Your task to perform on an android device: Open calendar and show me the third week of next month Image 0: 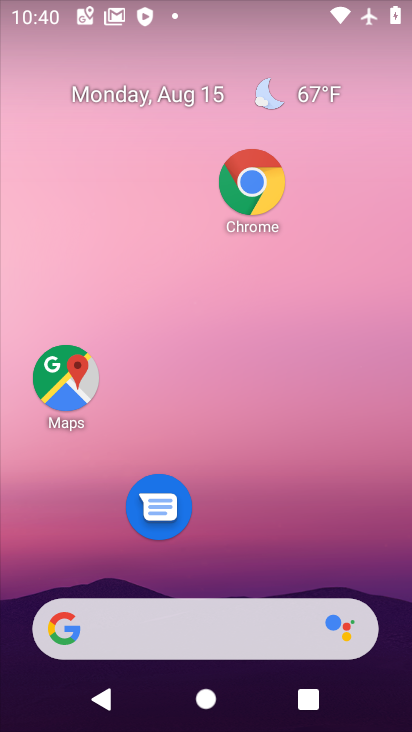
Step 0: drag from (304, 589) to (218, 45)
Your task to perform on an android device: Open calendar and show me the third week of next month Image 1: 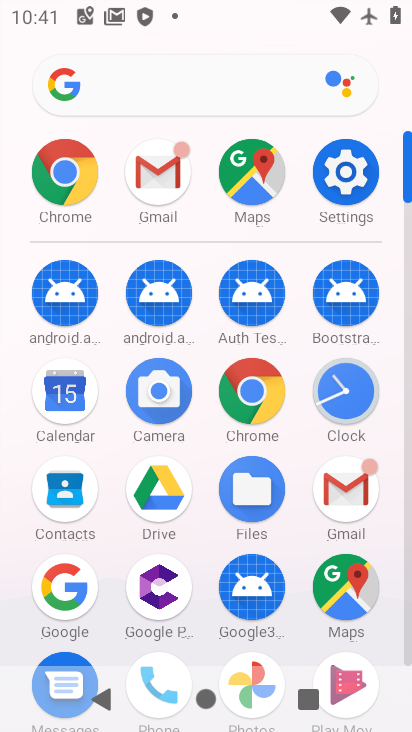
Step 1: click (59, 427)
Your task to perform on an android device: Open calendar and show me the third week of next month Image 2: 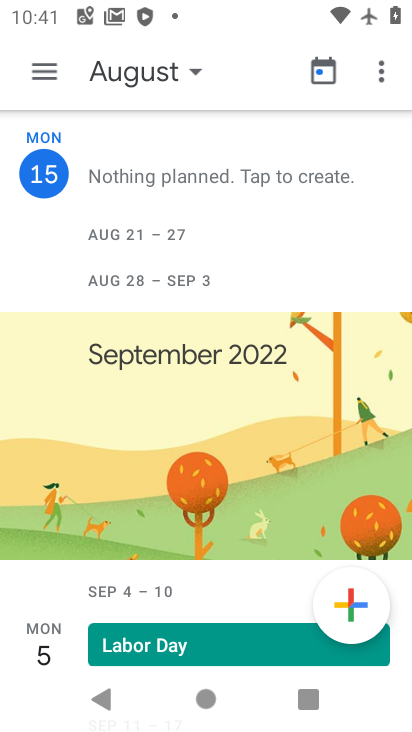
Step 2: click (388, 76)
Your task to perform on an android device: Open calendar and show me the third week of next month Image 3: 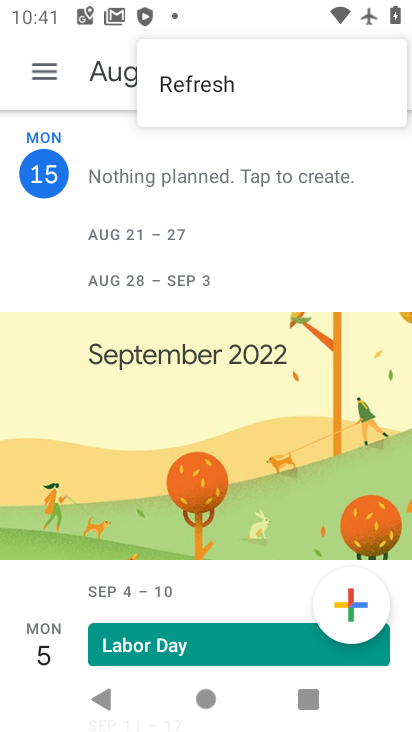
Step 3: click (39, 67)
Your task to perform on an android device: Open calendar and show me the third week of next month Image 4: 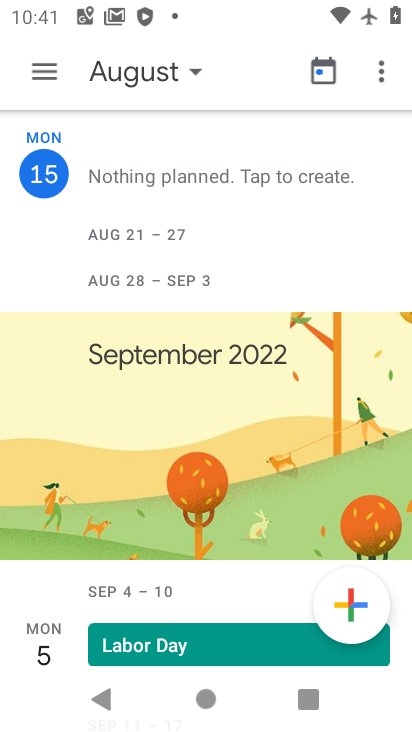
Step 4: click (39, 67)
Your task to perform on an android device: Open calendar and show me the third week of next month Image 5: 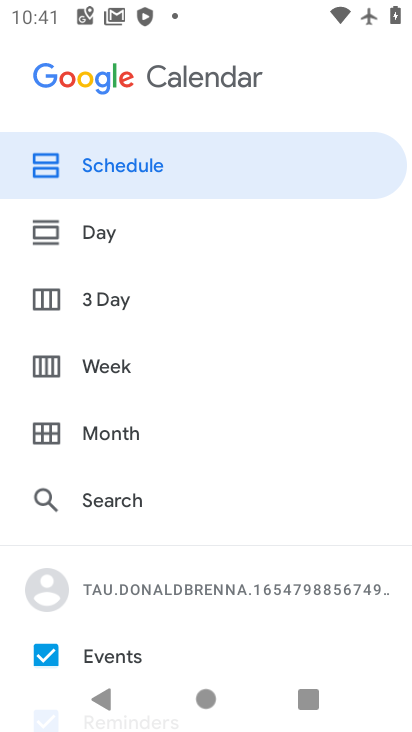
Step 5: task complete